Your task to perform on an android device: turn smart compose on in the gmail app Image 0: 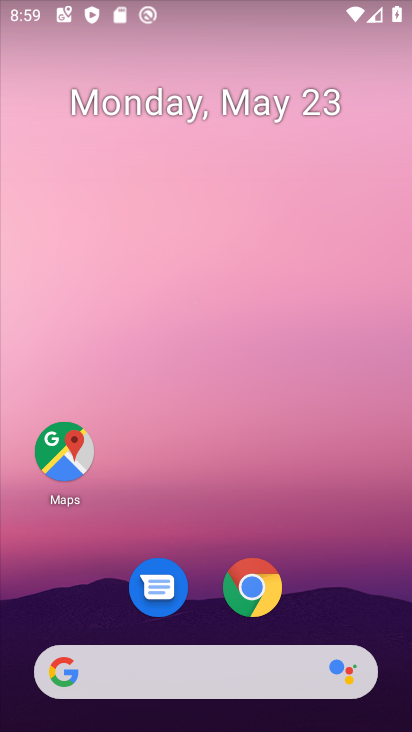
Step 0: drag from (320, 626) to (271, 114)
Your task to perform on an android device: turn smart compose on in the gmail app Image 1: 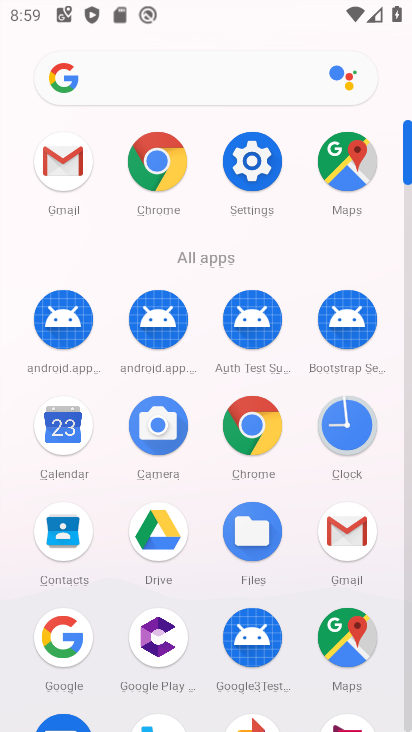
Step 1: click (395, 534)
Your task to perform on an android device: turn smart compose on in the gmail app Image 2: 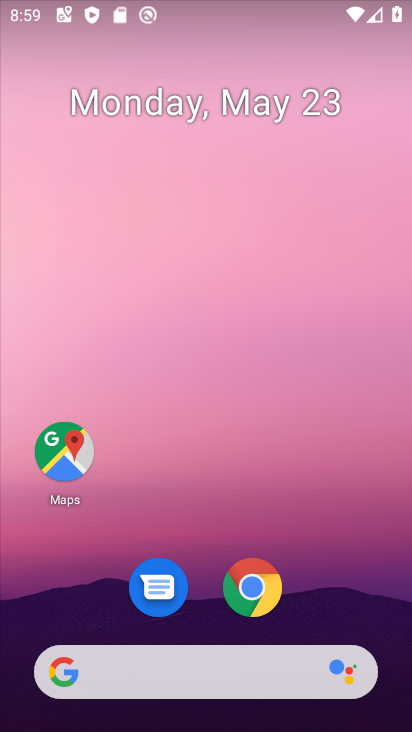
Step 2: click (344, 539)
Your task to perform on an android device: turn smart compose on in the gmail app Image 3: 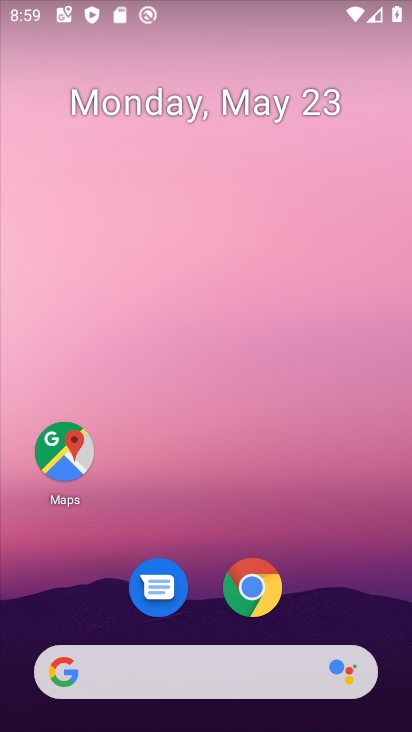
Step 3: drag from (354, 629) to (238, 192)
Your task to perform on an android device: turn smart compose on in the gmail app Image 4: 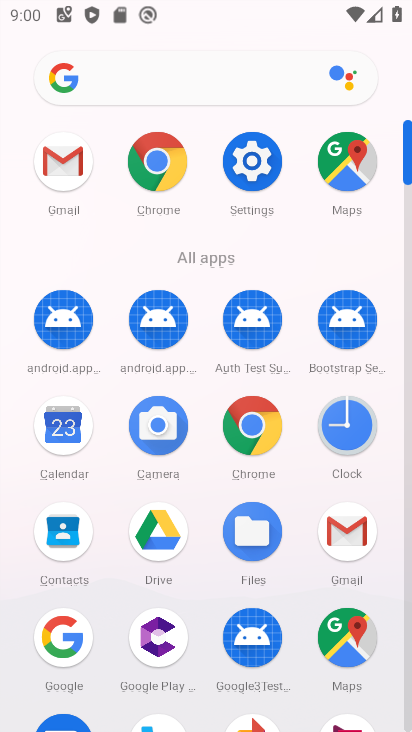
Step 4: click (353, 549)
Your task to perform on an android device: turn smart compose on in the gmail app Image 5: 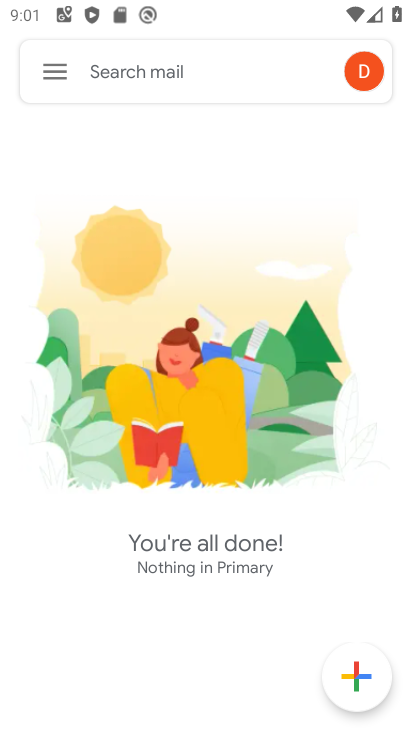
Step 5: click (54, 60)
Your task to perform on an android device: turn smart compose on in the gmail app Image 6: 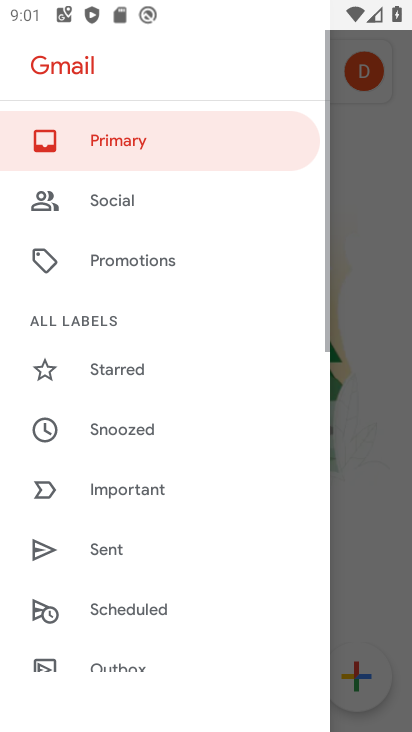
Step 6: click (54, 60)
Your task to perform on an android device: turn smart compose on in the gmail app Image 7: 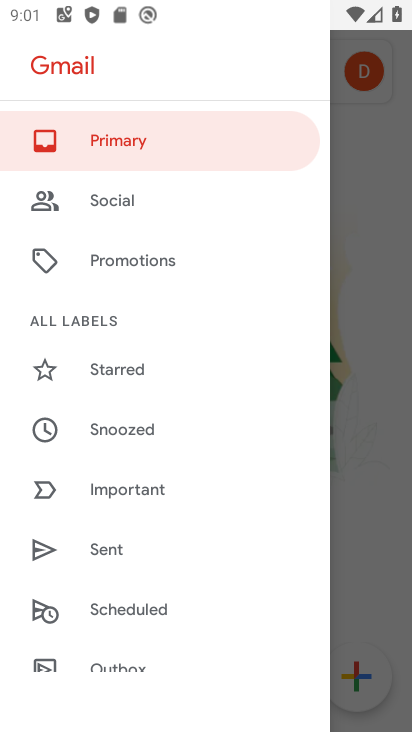
Step 7: drag from (181, 580) to (185, 155)
Your task to perform on an android device: turn smart compose on in the gmail app Image 8: 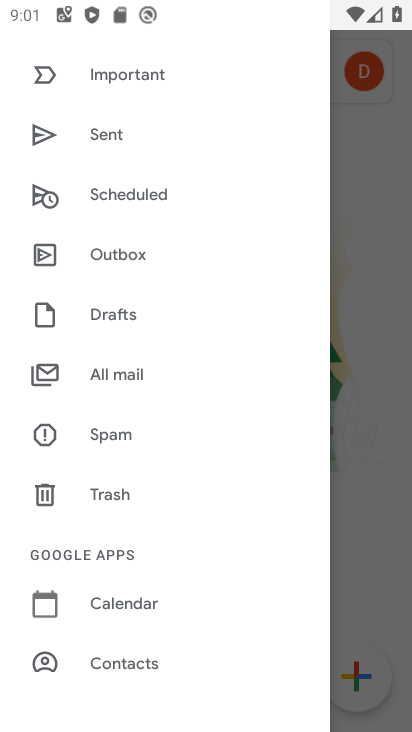
Step 8: drag from (144, 652) to (150, 240)
Your task to perform on an android device: turn smart compose on in the gmail app Image 9: 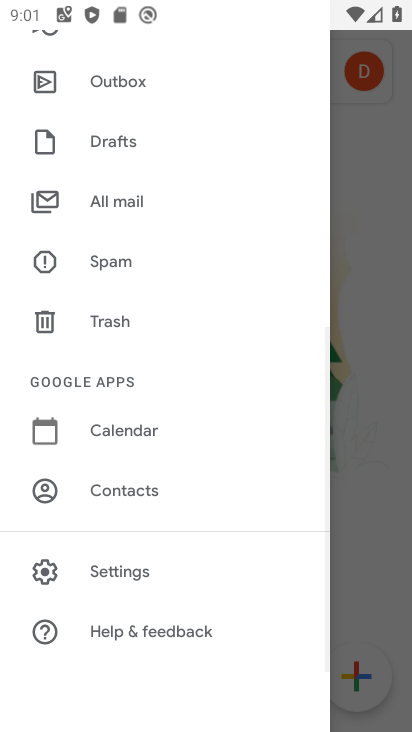
Step 9: click (126, 572)
Your task to perform on an android device: turn smart compose on in the gmail app Image 10: 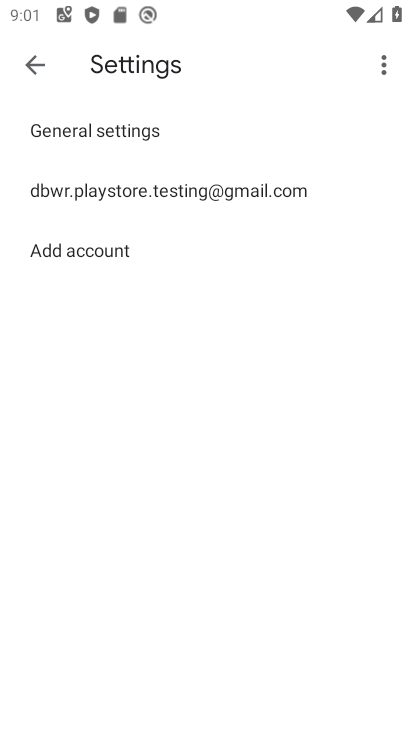
Step 10: click (119, 199)
Your task to perform on an android device: turn smart compose on in the gmail app Image 11: 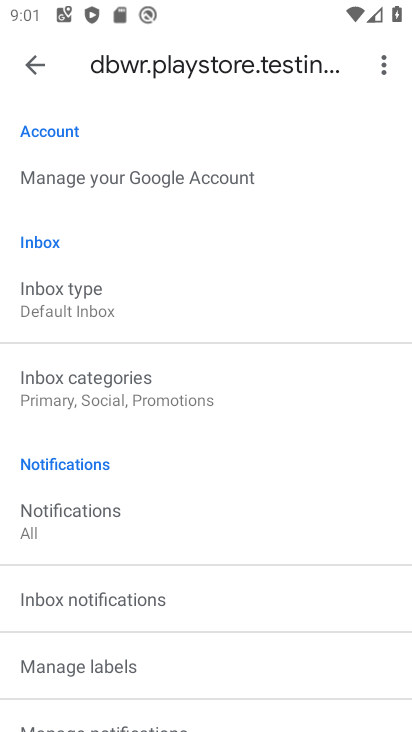
Step 11: task complete